Your task to perform on an android device: turn off picture-in-picture Image 0: 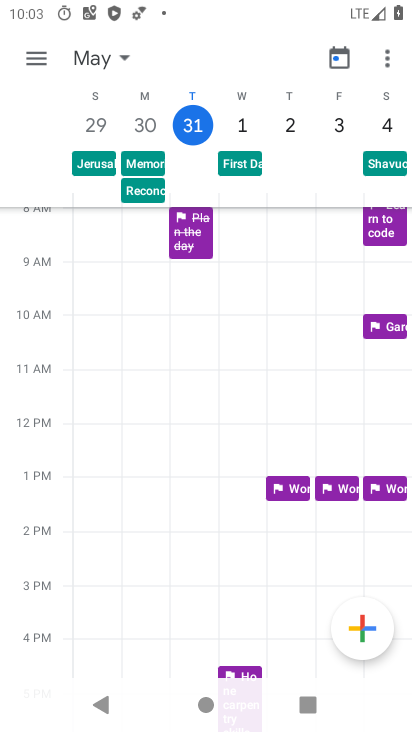
Step 0: press home button
Your task to perform on an android device: turn off picture-in-picture Image 1: 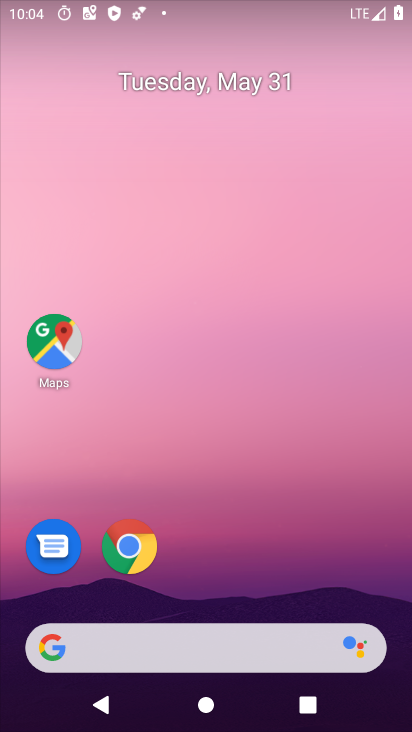
Step 1: click (385, 724)
Your task to perform on an android device: turn off picture-in-picture Image 2: 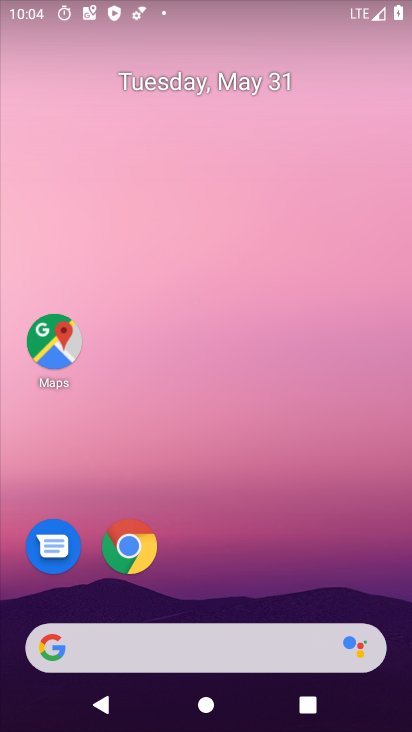
Step 2: type "picture-in-picture"
Your task to perform on an android device: turn off picture-in-picture Image 3: 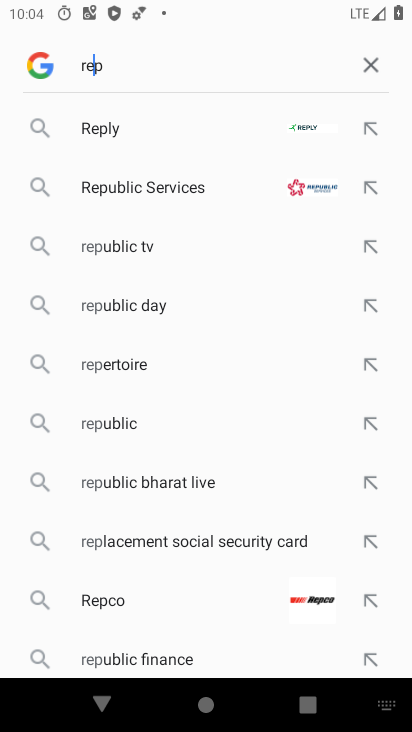
Step 3: click (366, 69)
Your task to perform on an android device: turn off picture-in-picture Image 4: 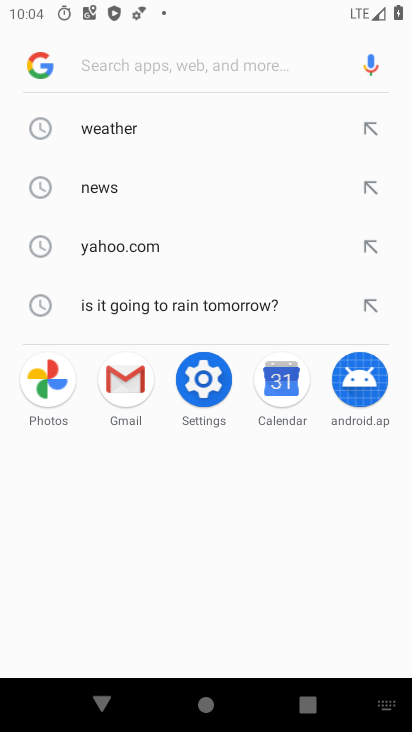
Step 4: press home button
Your task to perform on an android device: turn off picture-in-picture Image 5: 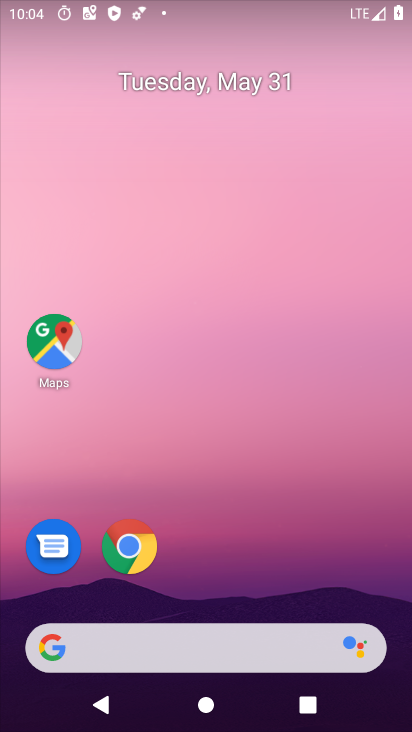
Step 5: drag from (242, 557) to (257, 114)
Your task to perform on an android device: turn off picture-in-picture Image 6: 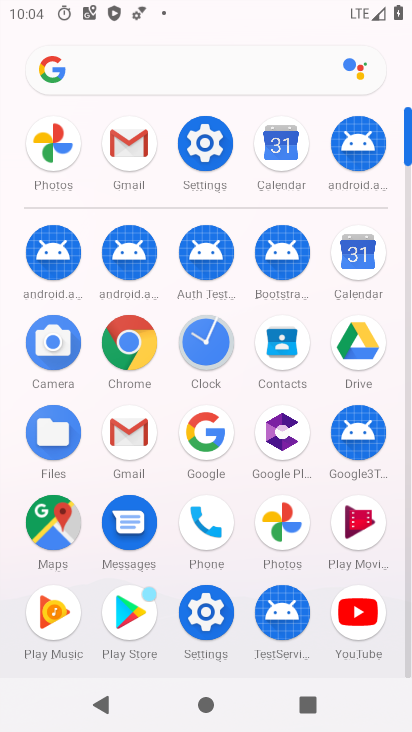
Step 6: click (200, 164)
Your task to perform on an android device: turn off picture-in-picture Image 7: 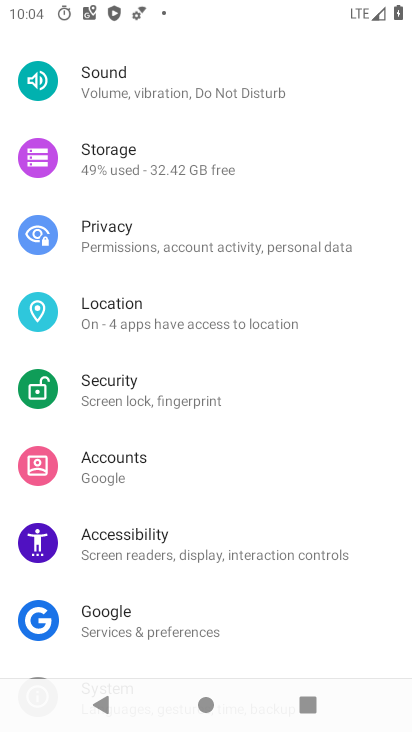
Step 7: drag from (192, 77) to (204, 537)
Your task to perform on an android device: turn off picture-in-picture Image 8: 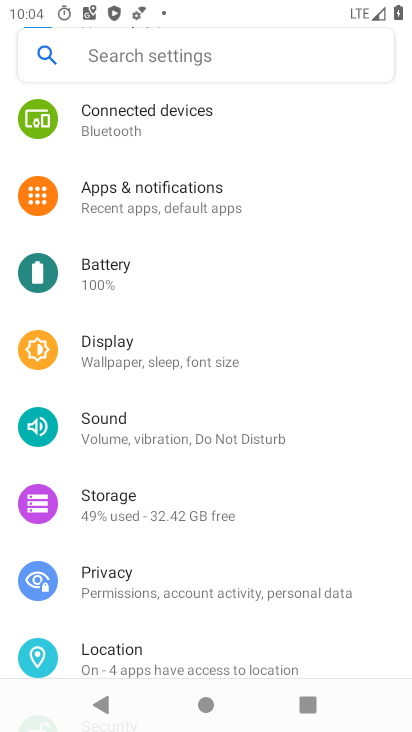
Step 8: click (121, 43)
Your task to perform on an android device: turn off picture-in-picture Image 9: 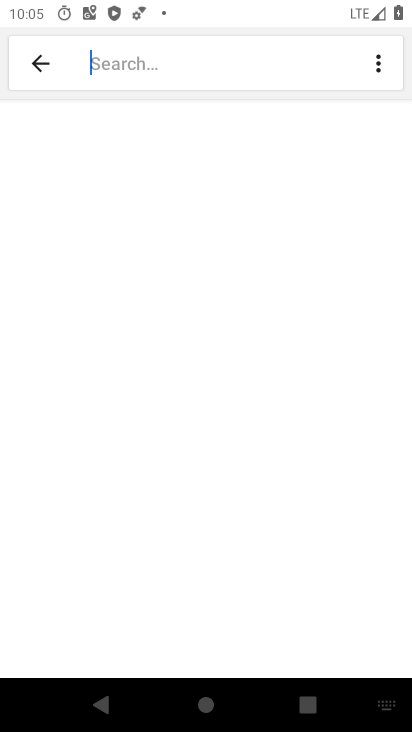
Step 9: type "picture-in-picture"
Your task to perform on an android device: turn off picture-in-picture Image 10: 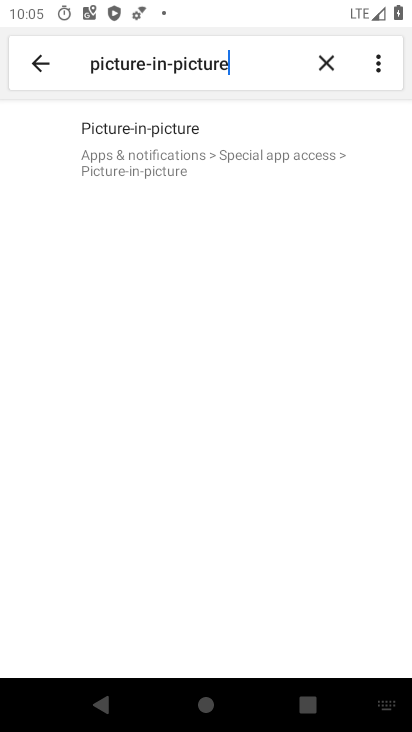
Step 10: click (228, 137)
Your task to perform on an android device: turn off picture-in-picture Image 11: 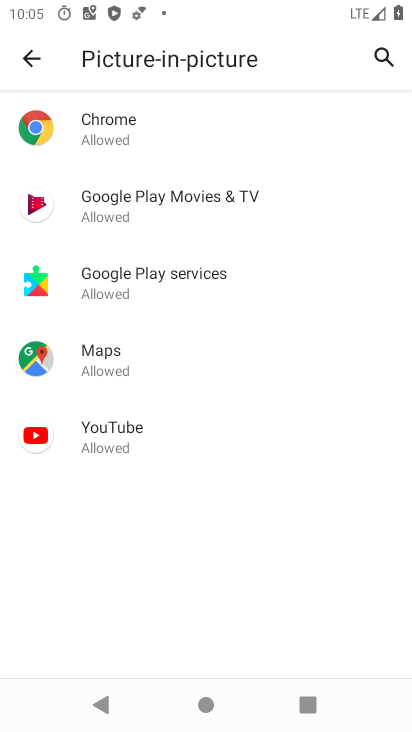
Step 11: click (151, 127)
Your task to perform on an android device: turn off picture-in-picture Image 12: 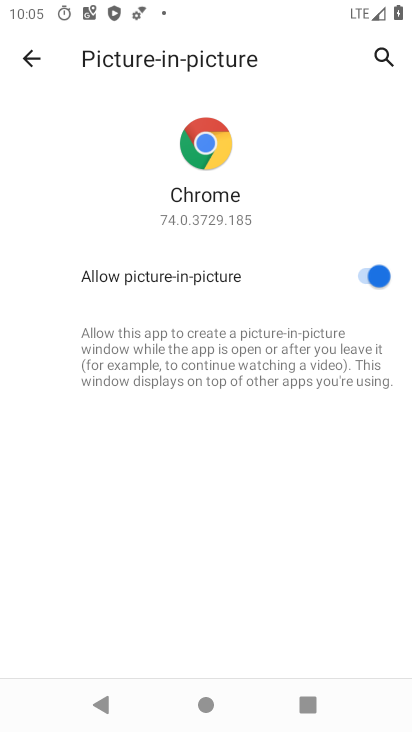
Step 12: click (382, 273)
Your task to perform on an android device: turn off picture-in-picture Image 13: 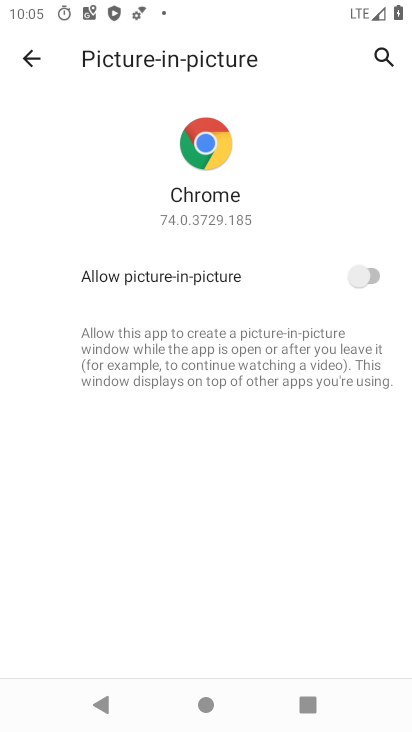
Step 13: click (32, 66)
Your task to perform on an android device: turn off picture-in-picture Image 14: 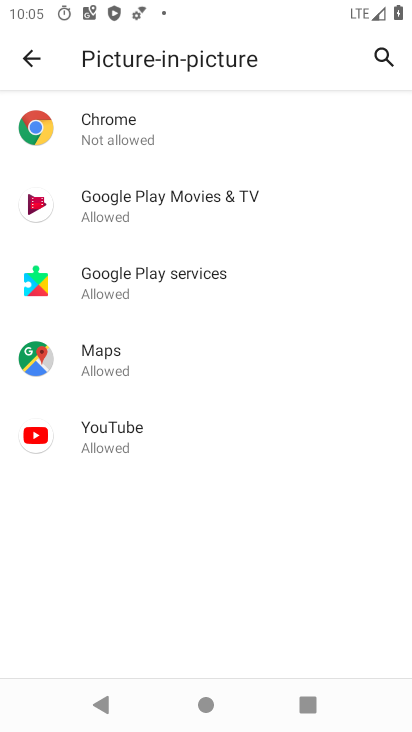
Step 14: click (112, 194)
Your task to perform on an android device: turn off picture-in-picture Image 15: 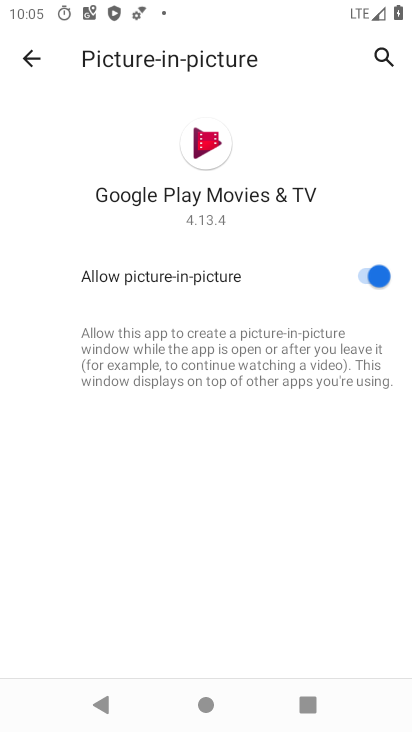
Step 15: click (367, 258)
Your task to perform on an android device: turn off picture-in-picture Image 16: 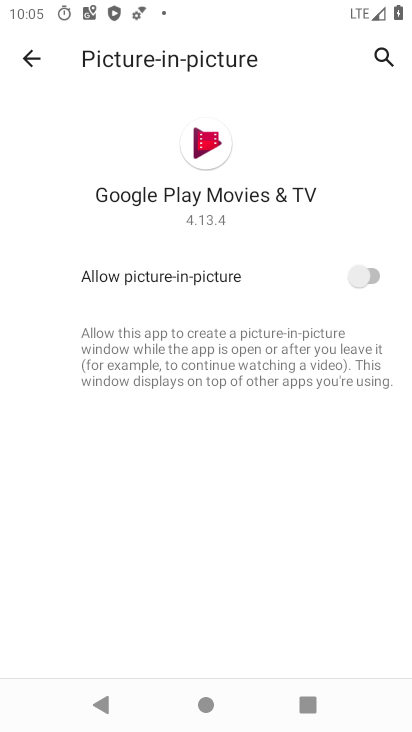
Step 16: click (24, 46)
Your task to perform on an android device: turn off picture-in-picture Image 17: 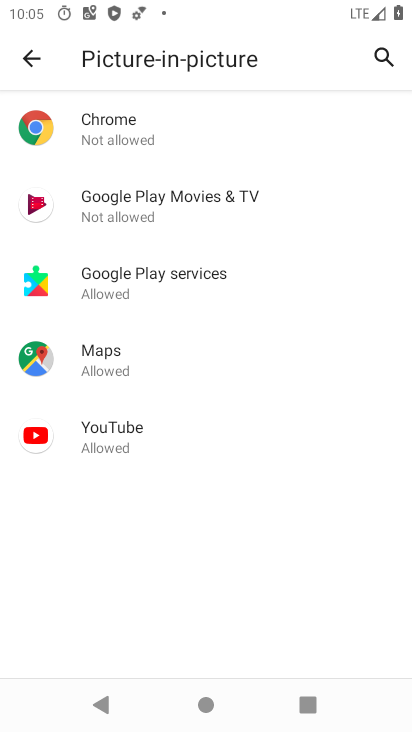
Step 17: click (166, 278)
Your task to perform on an android device: turn off picture-in-picture Image 18: 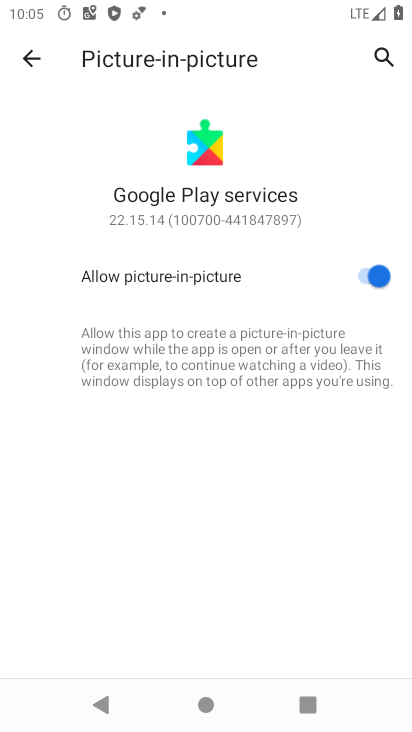
Step 18: click (368, 269)
Your task to perform on an android device: turn off picture-in-picture Image 19: 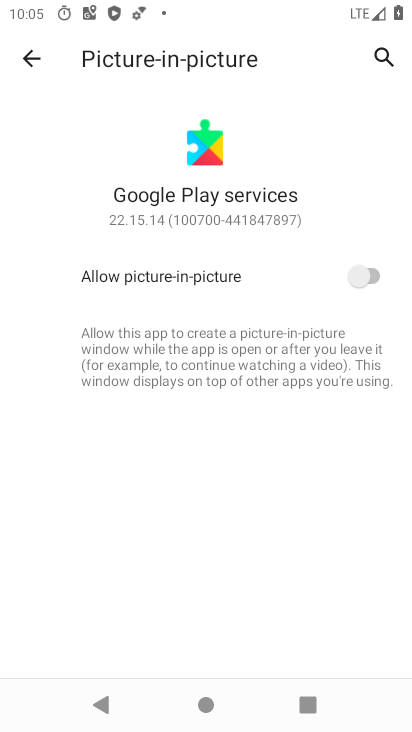
Step 19: click (30, 57)
Your task to perform on an android device: turn off picture-in-picture Image 20: 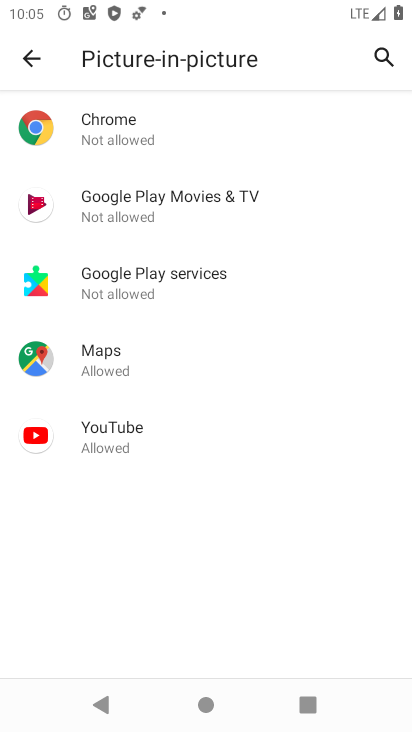
Step 20: click (149, 368)
Your task to perform on an android device: turn off picture-in-picture Image 21: 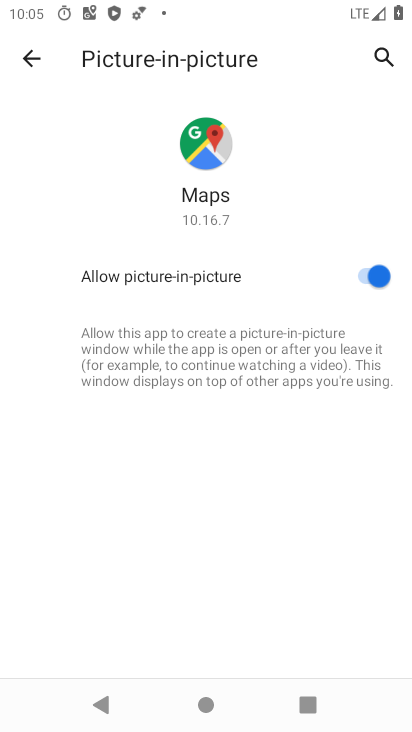
Step 21: click (361, 269)
Your task to perform on an android device: turn off picture-in-picture Image 22: 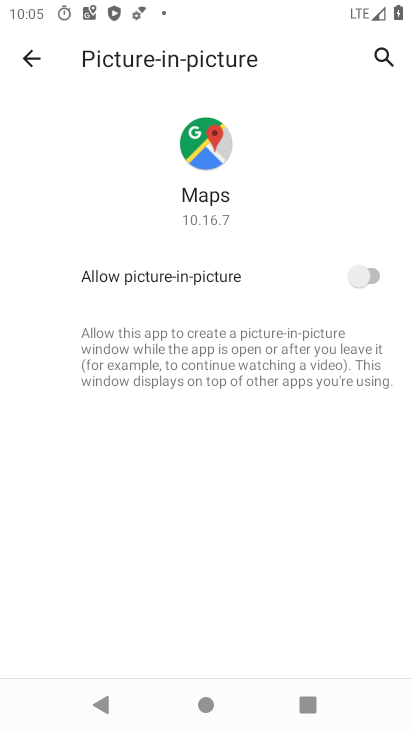
Step 22: click (25, 70)
Your task to perform on an android device: turn off picture-in-picture Image 23: 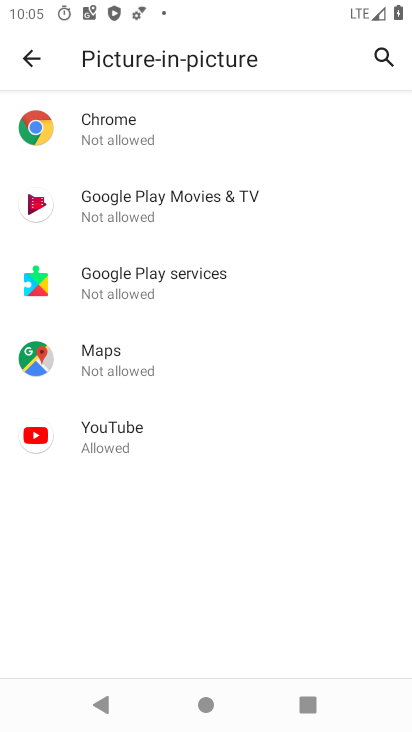
Step 23: click (95, 413)
Your task to perform on an android device: turn off picture-in-picture Image 24: 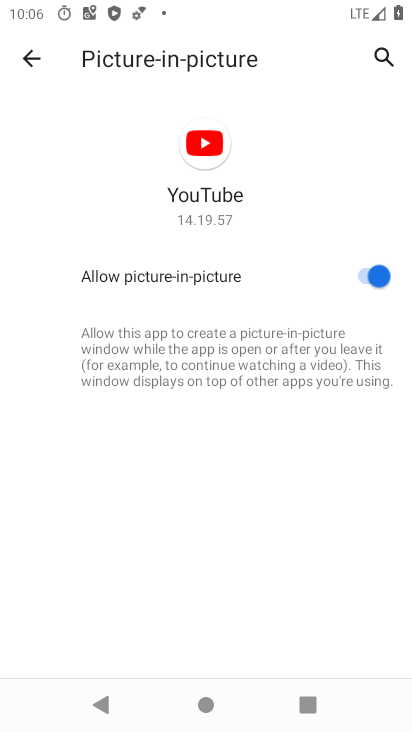
Step 24: click (400, 261)
Your task to perform on an android device: turn off picture-in-picture Image 25: 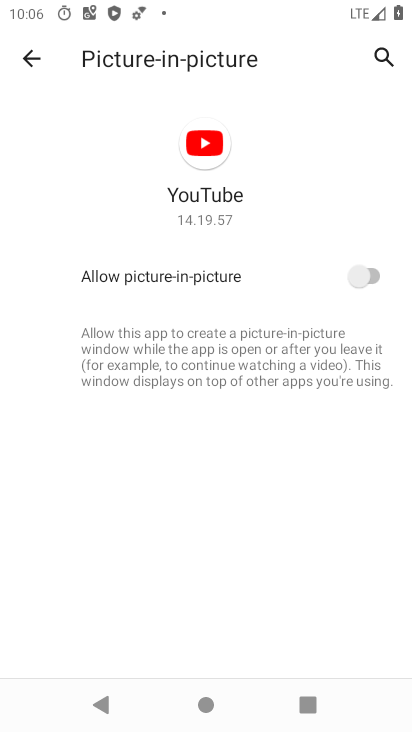
Step 25: click (400, 261)
Your task to perform on an android device: turn off picture-in-picture Image 26: 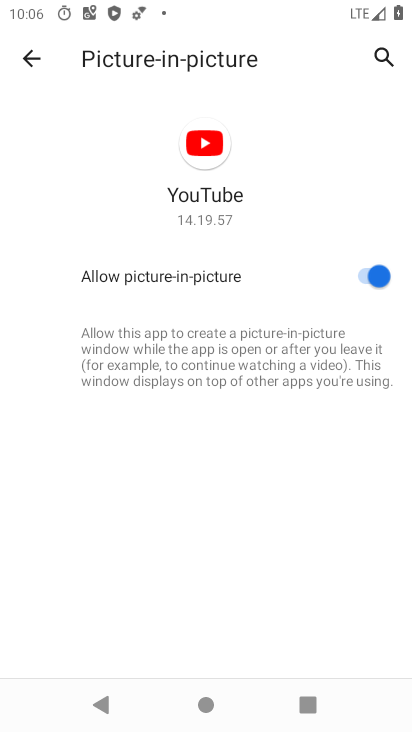
Step 26: click (373, 284)
Your task to perform on an android device: turn off picture-in-picture Image 27: 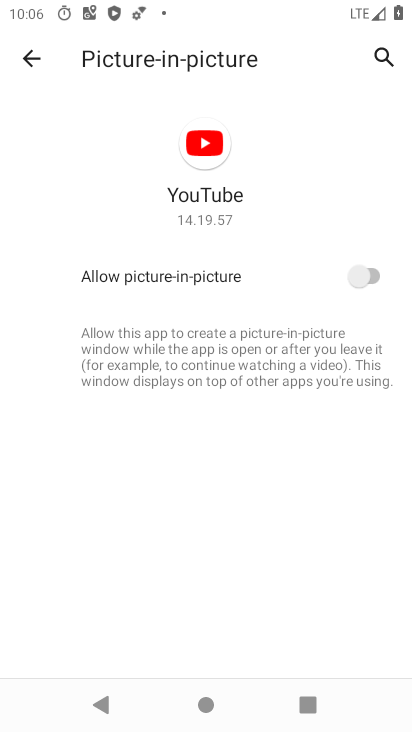
Step 27: task complete